Your task to perform on an android device: turn pop-ups on in chrome Image 0: 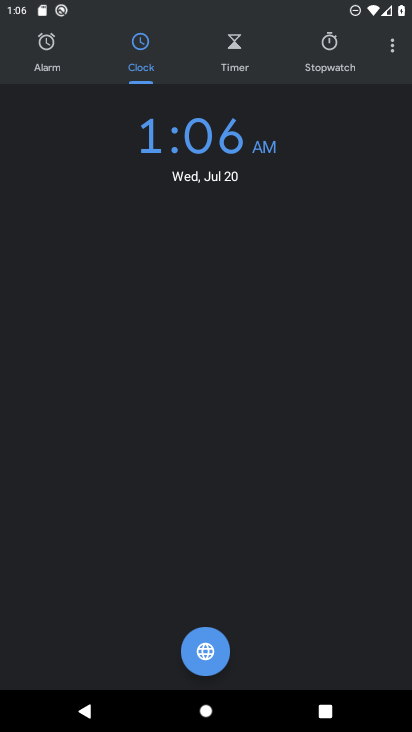
Step 0: press home button
Your task to perform on an android device: turn pop-ups on in chrome Image 1: 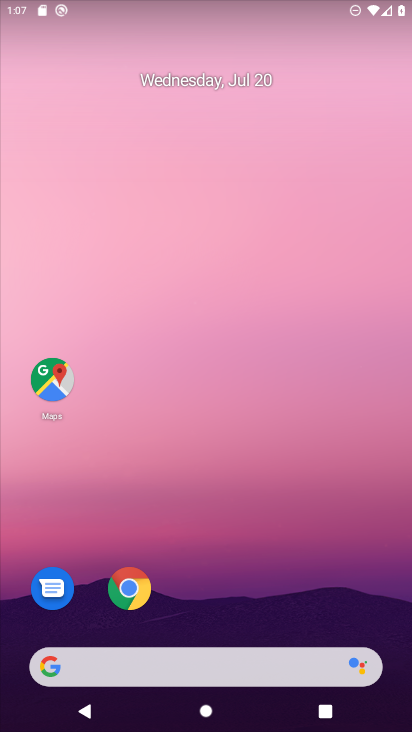
Step 1: click (129, 603)
Your task to perform on an android device: turn pop-ups on in chrome Image 2: 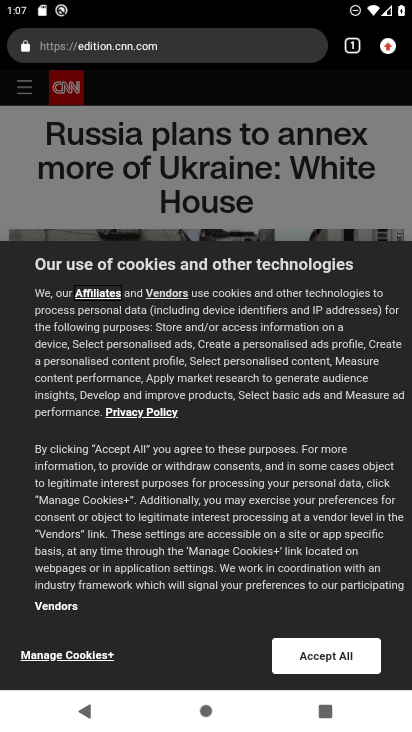
Step 2: click (398, 44)
Your task to perform on an android device: turn pop-ups on in chrome Image 3: 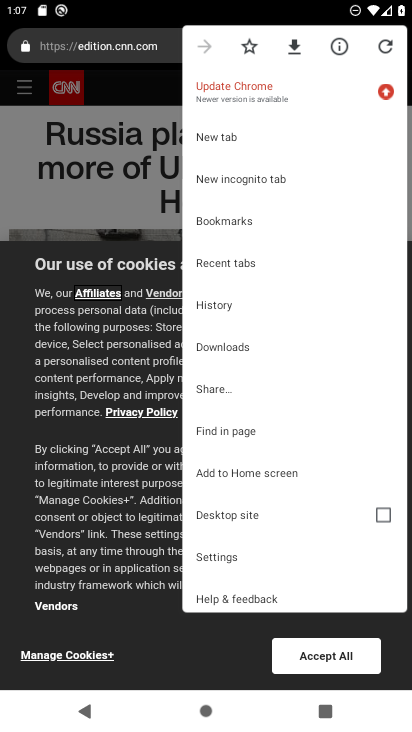
Step 3: click (292, 562)
Your task to perform on an android device: turn pop-ups on in chrome Image 4: 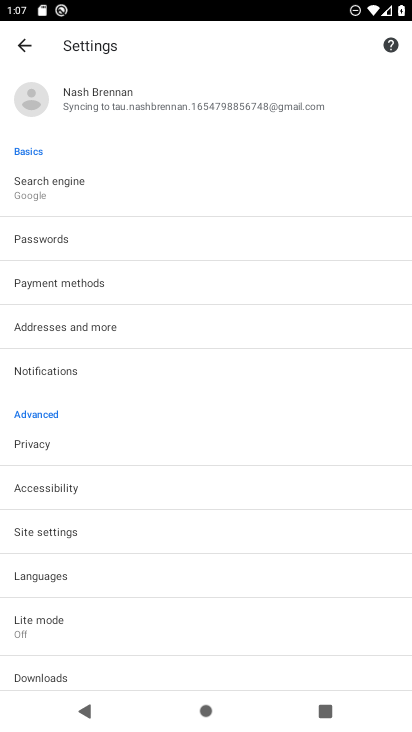
Step 4: click (138, 545)
Your task to perform on an android device: turn pop-ups on in chrome Image 5: 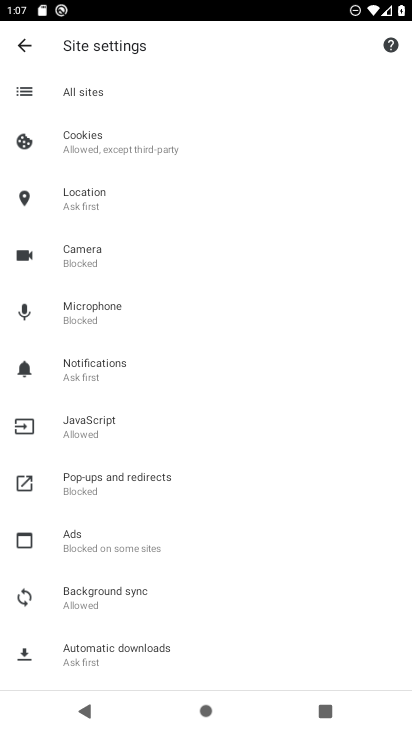
Step 5: click (154, 508)
Your task to perform on an android device: turn pop-ups on in chrome Image 6: 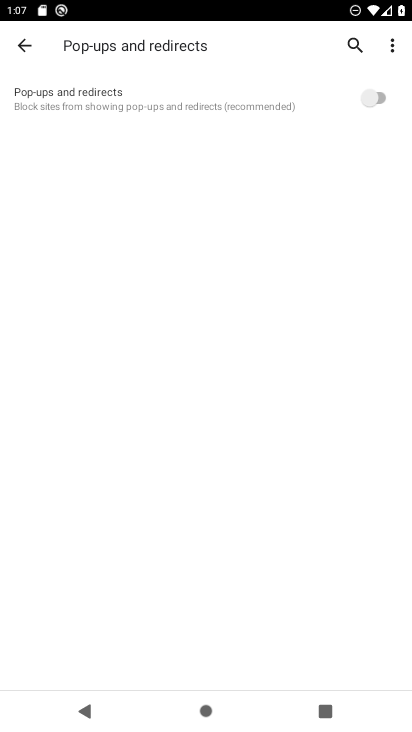
Step 6: click (388, 107)
Your task to perform on an android device: turn pop-ups on in chrome Image 7: 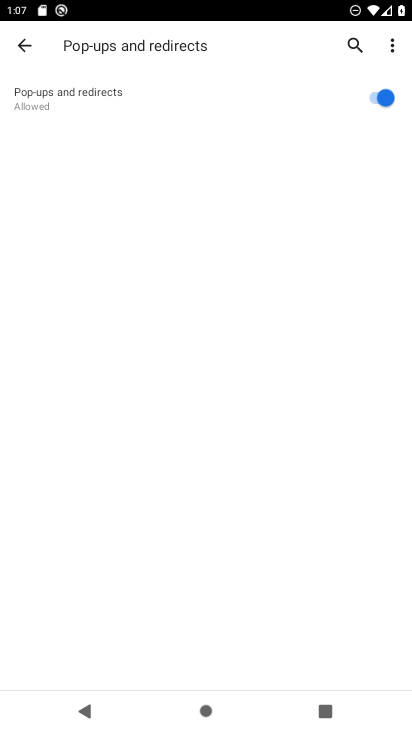
Step 7: task complete